Your task to perform on an android device: check google app version Image 0: 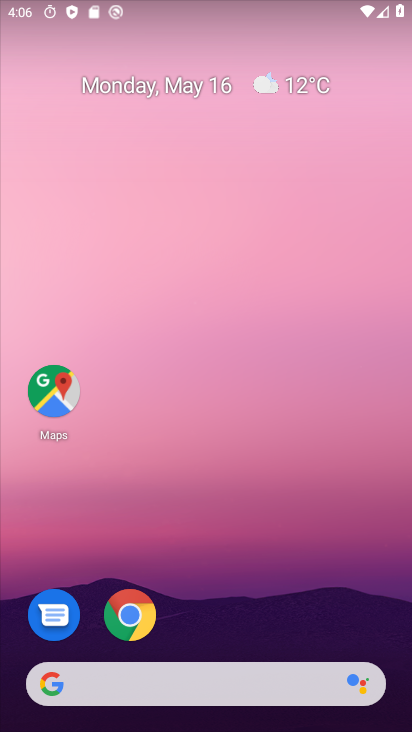
Step 0: drag from (236, 665) to (91, 11)
Your task to perform on an android device: check google app version Image 1: 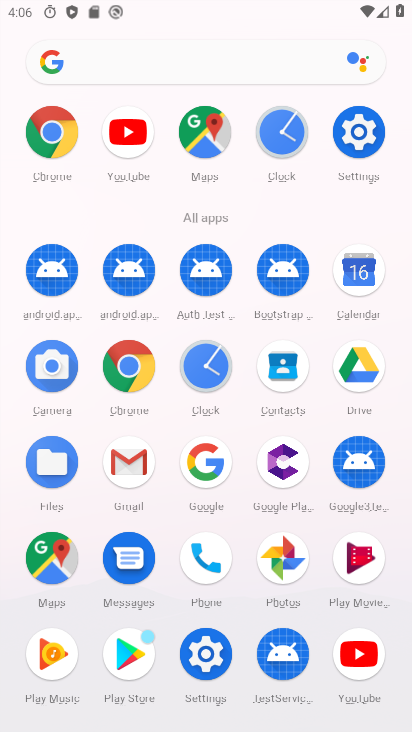
Step 1: drag from (191, 466) to (279, 332)
Your task to perform on an android device: check google app version Image 2: 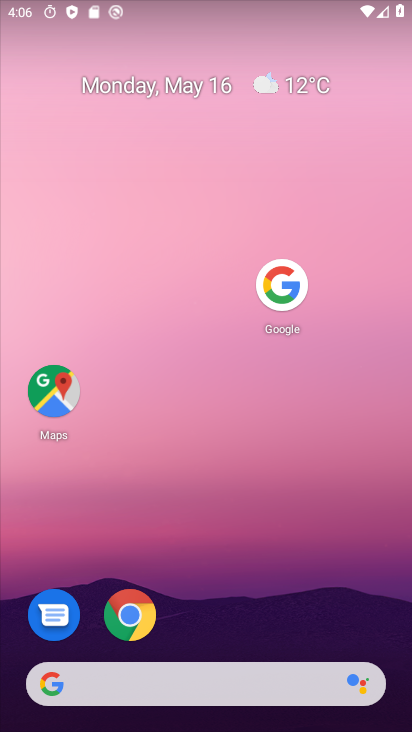
Step 2: click (280, 293)
Your task to perform on an android device: check google app version Image 3: 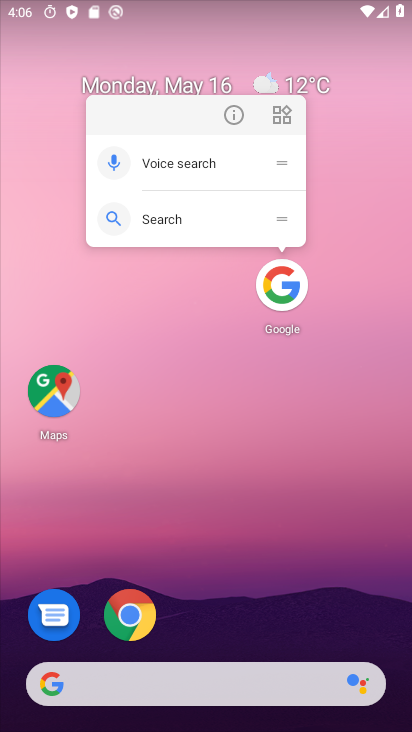
Step 3: click (238, 119)
Your task to perform on an android device: check google app version Image 4: 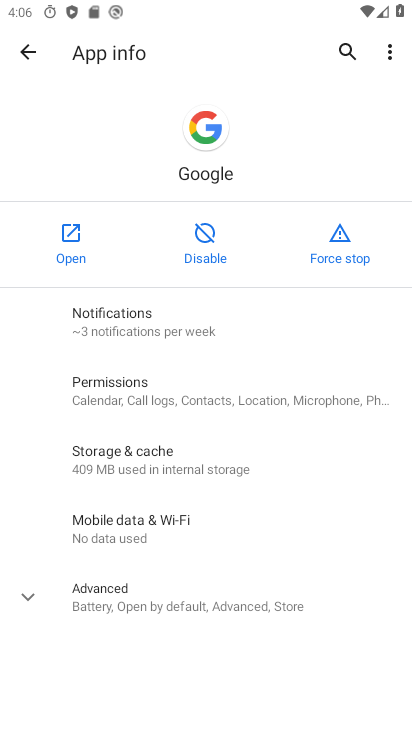
Step 4: click (154, 609)
Your task to perform on an android device: check google app version Image 5: 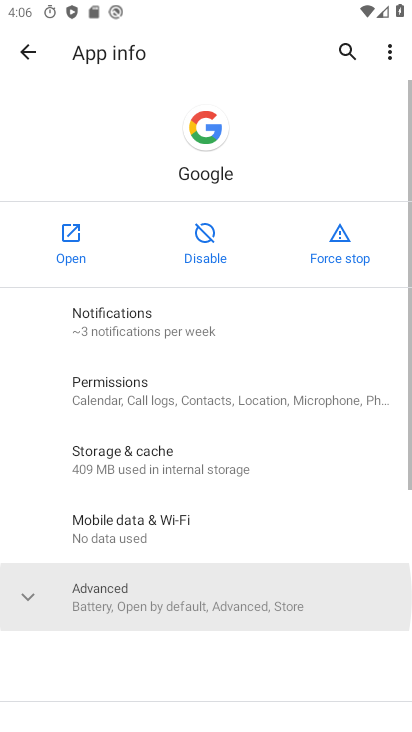
Step 5: drag from (154, 609) to (89, 130)
Your task to perform on an android device: check google app version Image 6: 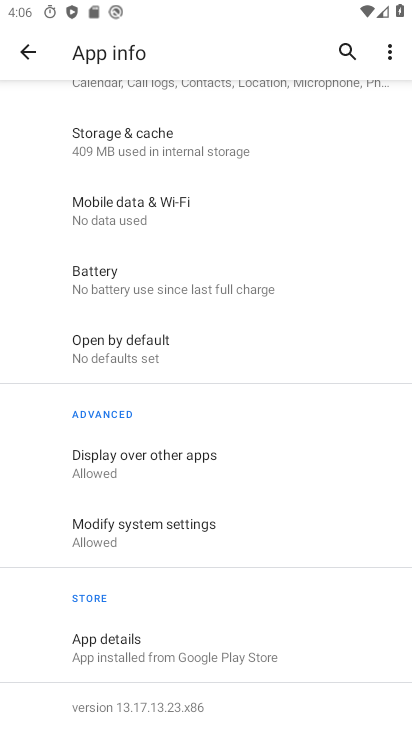
Step 6: click (145, 716)
Your task to perform on an android device: check google app version Image 7: 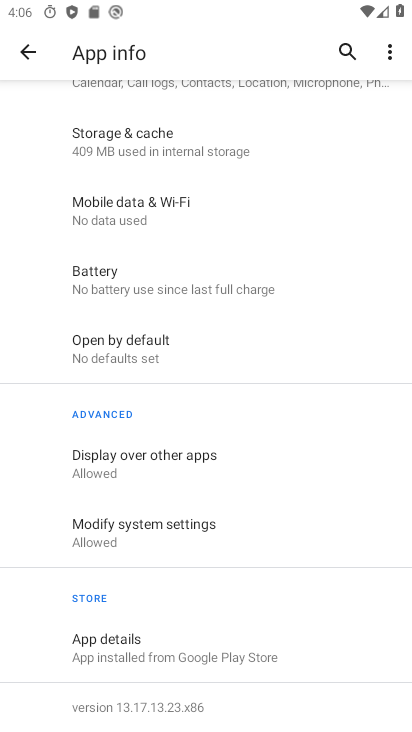
Step 7: task complete